Your task to perform on an android device: empty trash in the gmail app Image 0: 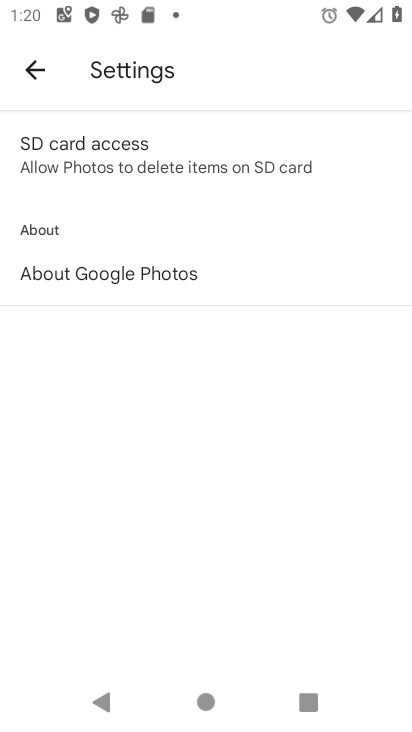
Step 0: press home button
Your task to perform on an android device: empty trash in the gmail app Image 1: 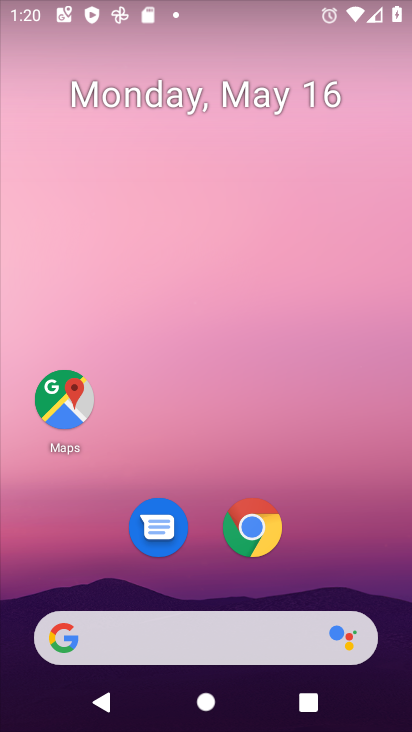
Step 1: drag from (315, 558) to (219, 49)
Your task to perform on an android device: empty trash in the gmail app Image 2: 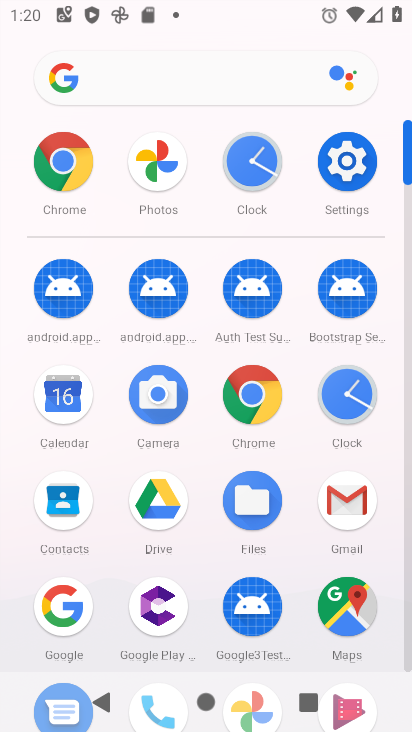
Step 2: click (363, 512)
Your task to perform on an android device: empty trash in the gmail app Image 3: 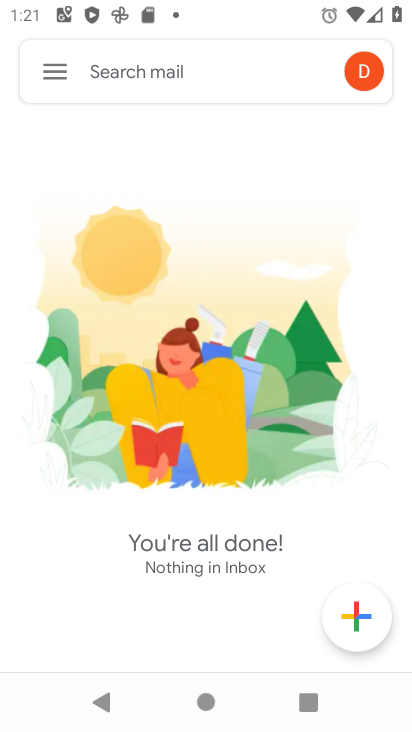
Step 3: click (56, 70)
Your task to perform on an android device: empty trash in the gmail app Image 4: 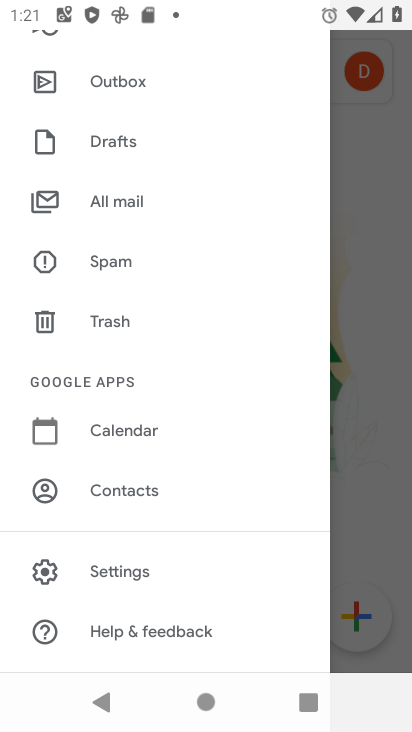
Step 4: click (98, 329)
Your task to perform on an android device: empty trash in the gmail app Image 5: 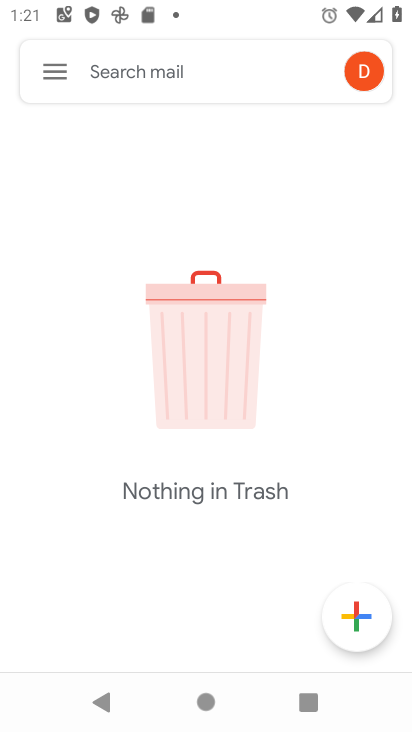
Step 5: task complete